Your task to perform on an android device: delete browsing data in the chrome app Image 0: 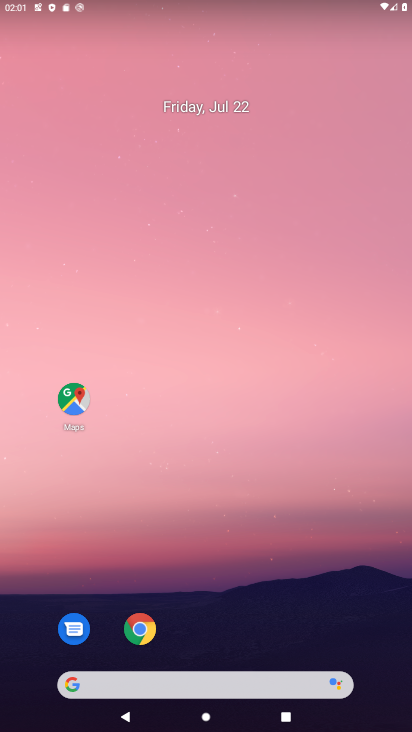
Step 0: click (126, 629)
Your task to perform on an android device: delete browsing data in the chrome app Image 1: 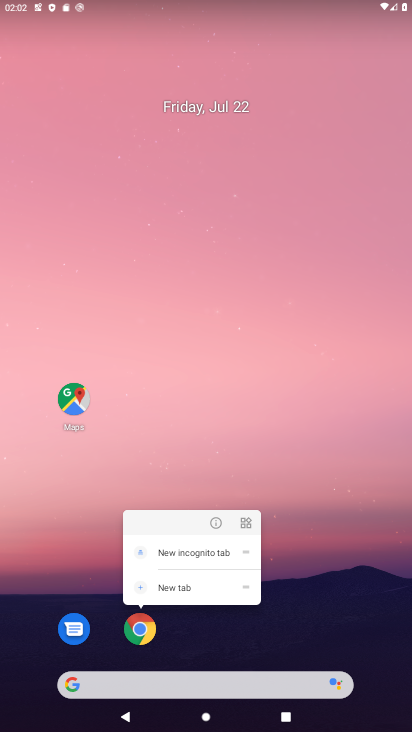
Step 1: click (141, 629)
Your task to perform on an android device: delete browsing data in the chrome app Image 2: 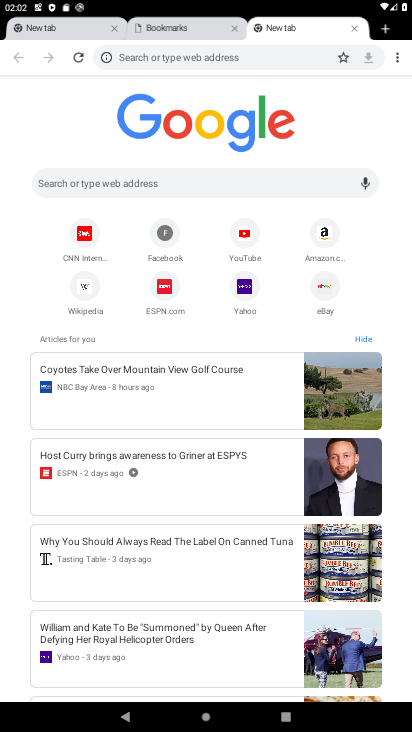
Step 2: click (358, 33)
Your task to perform on an android device: delete browsing data in the chrome app Image 3: 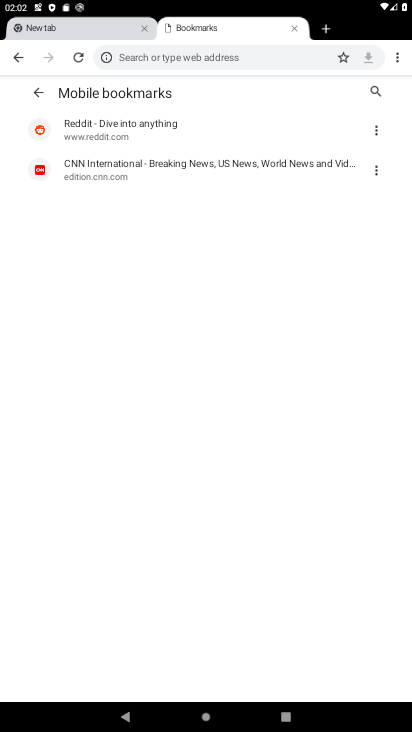
Step 3: click (297, 27)
Your task to perform on an android device: delete browsing data in the chrome app Image 4: 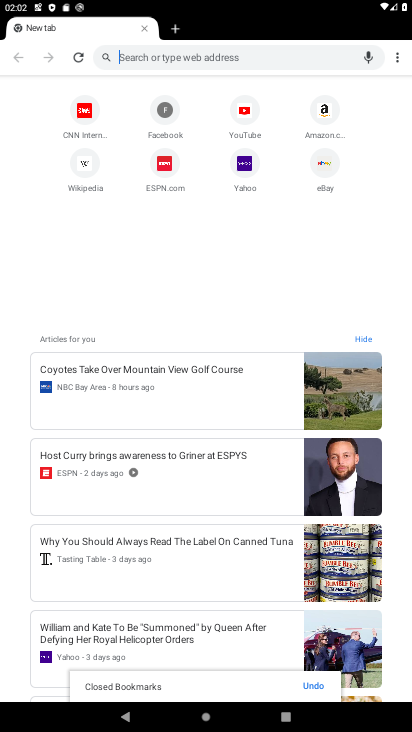
Step 4: click (393, 61)
Your task to perform on an android device: delete browsing data in the chrome app Image 5: 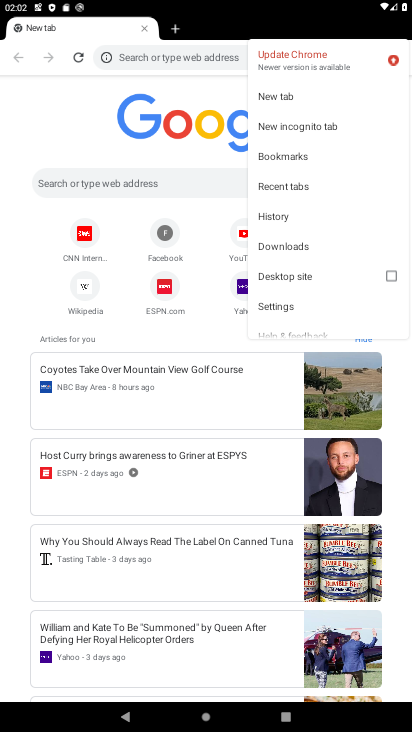
Step 5: click (278, 213)
Your task to perform on an android device: delete browsing data in the chrome app Image 6: 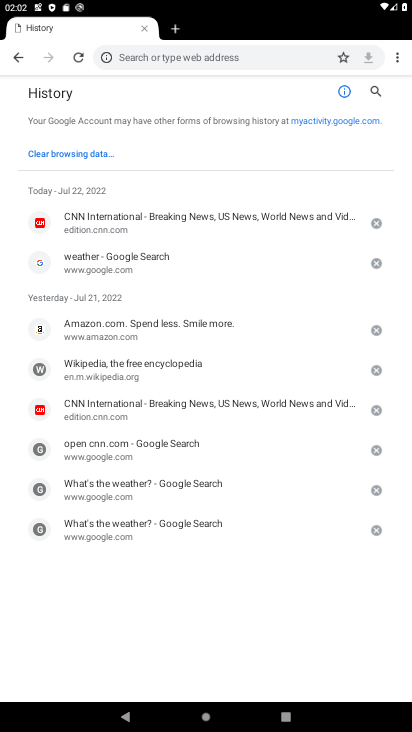
Step 6: click (49, 157)
Your task to perform on an android device: delete browsing data in the chrome app Image 7: 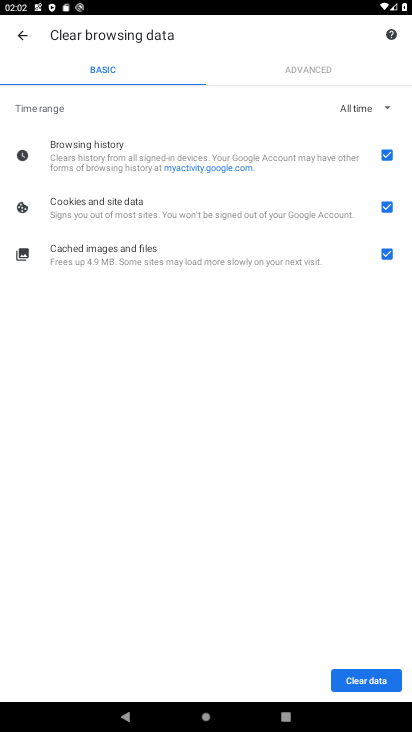
Step 7: click (391, 681)
Your task to perform on an android device: delete browsing data in the chrome app Image 8: 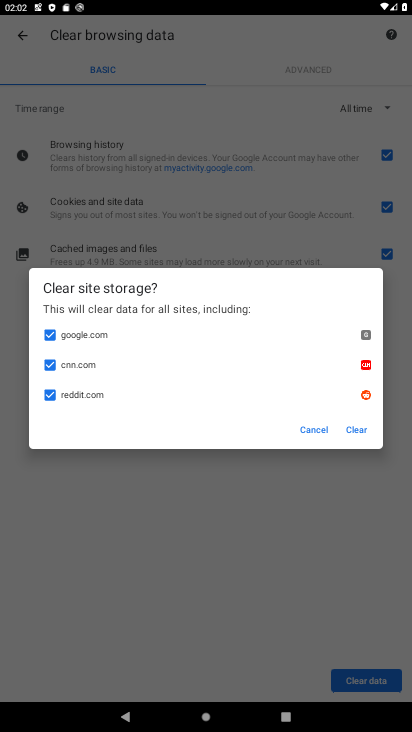
Step 8: click (353, 428)
Your task to perform on an android device: delete browsing data in the chrome app Image 9: 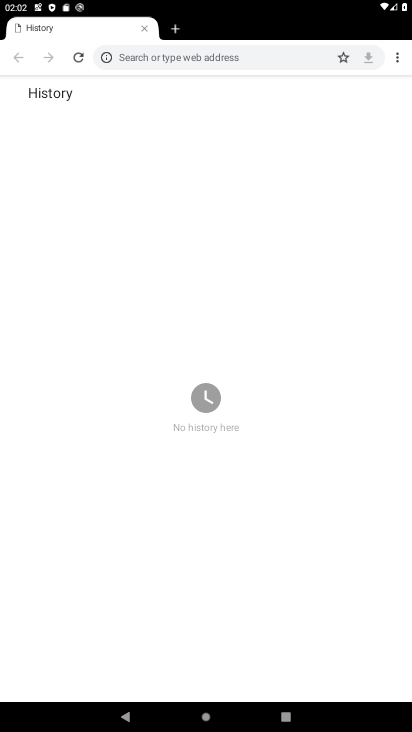
Step 9: task complete